Your task to perform on an android device: check data usage Image 0: 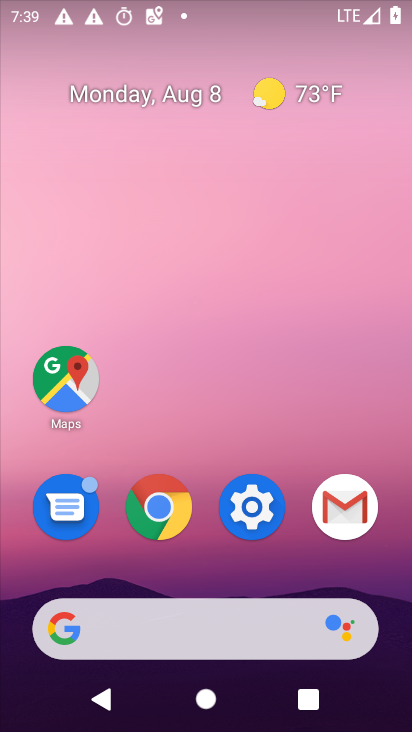
Step 0: drag from (251, 559) to (179, 209)
Your task to perform on an android device: check data usage Image 1: 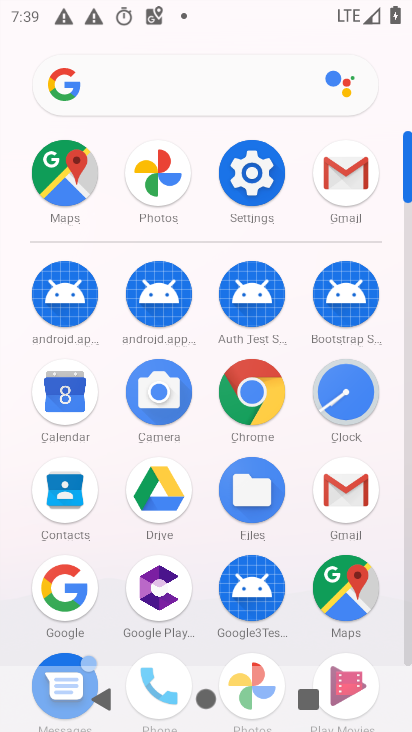
Step 1: click (258, 179)
Your task to perform on an android device: check data usage Image 2: 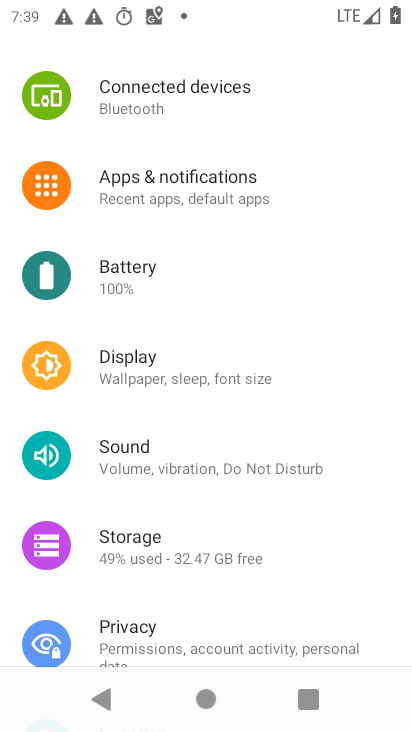
Step 2: drag from (158, 94) to (222, 392)
Your task to perform on an android device: check data usage Image 3: 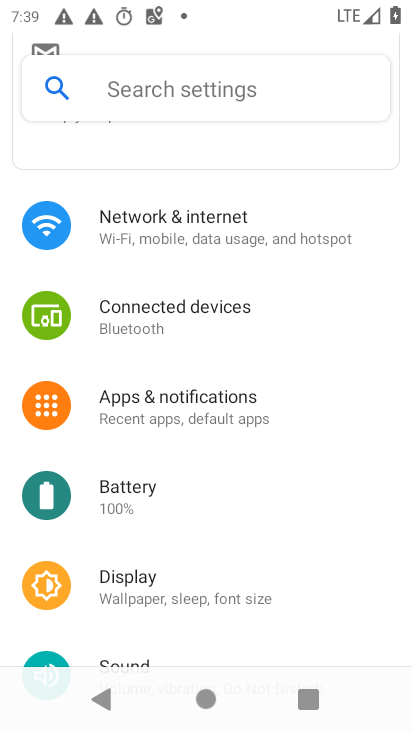
Step 3: click (191, 89)
Your task to perform on an android device: check data usage Image 4: 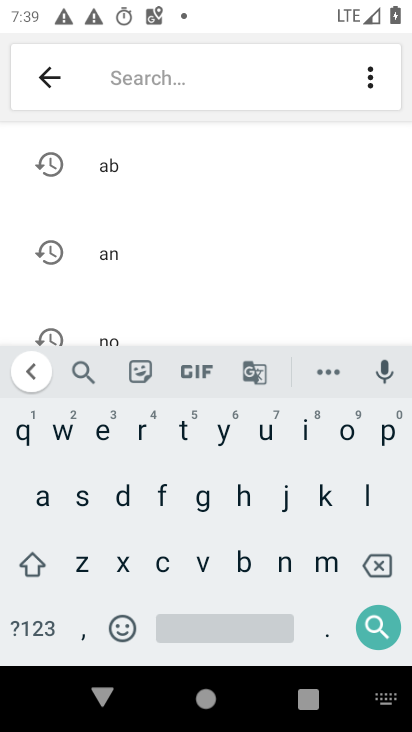
Step 4: click (129, 501)
Your task to perform on an android device: check data usage Image 5: 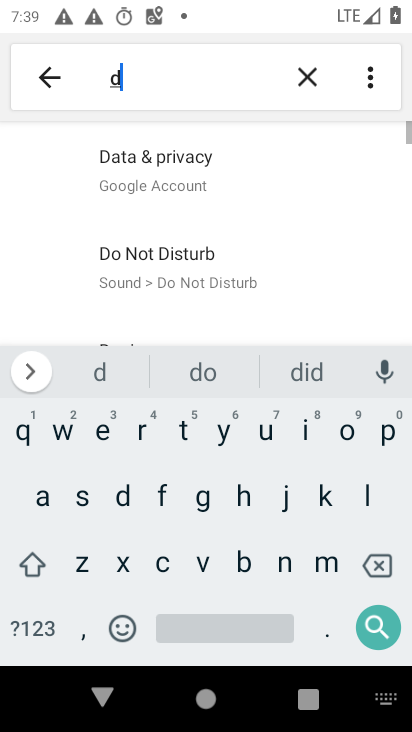
Step 5: click (39, 498)
Your task to perform on an android device: check data usage Image 6: 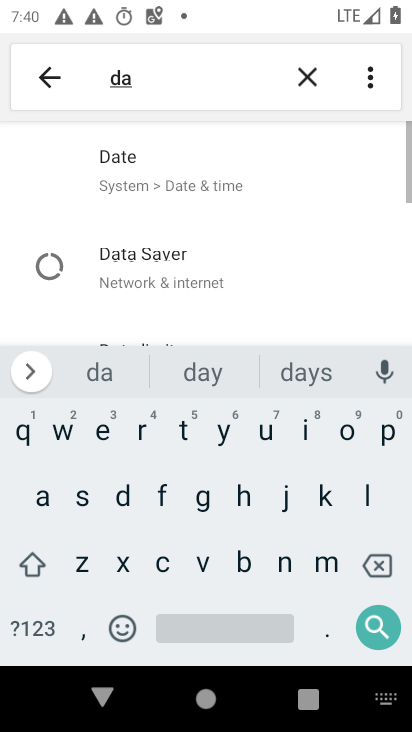
Step 6: click (182, 436)
Your task to perform on an android device: check data usage Image 7: 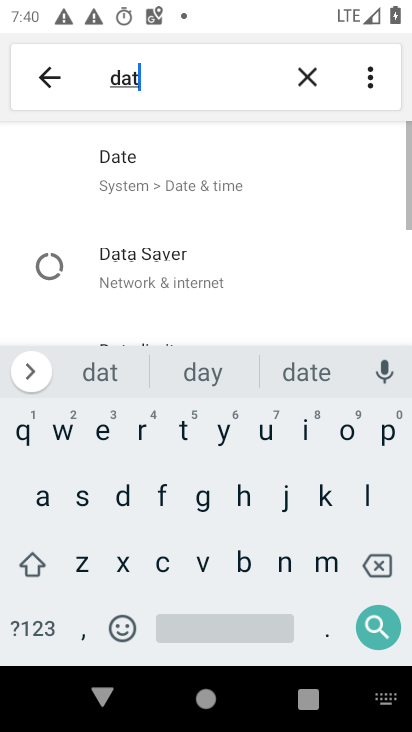
Step 7: click (38, 494)
Your task to perform on an android device: check data usage Image 8: 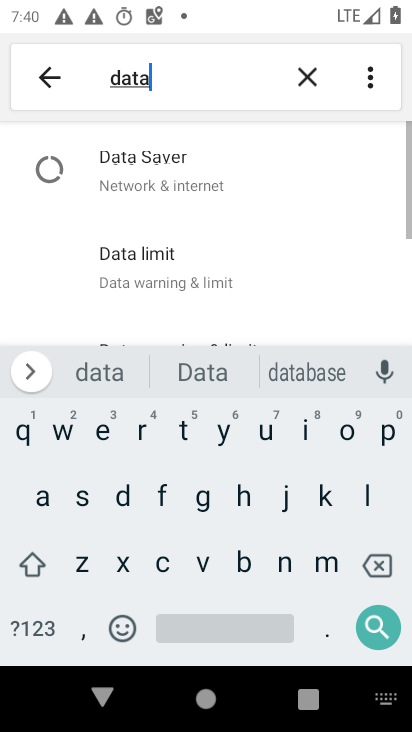
Step 8: click (200, 625)
Your task to perform on an android device: check data usage Image 9: 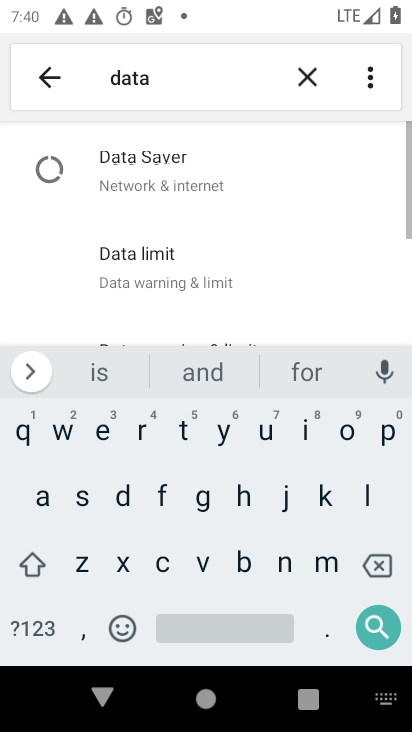
Step 9: click (267, 435)
Your task to perform on an android device: check data usage Image 10: 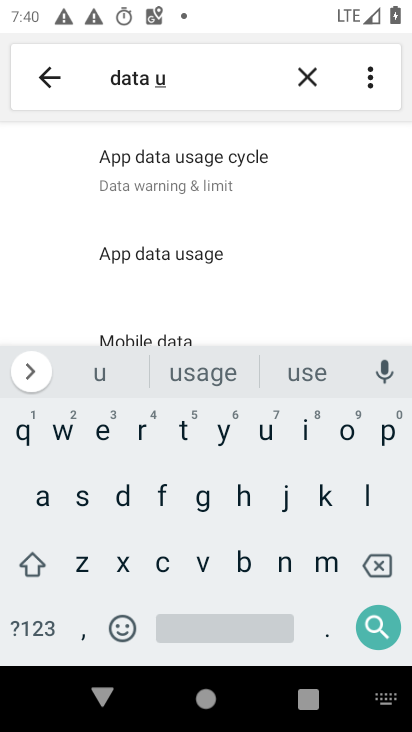
Step 10: click (126, 249)
Your task to perform on an android device: check data usage Image 11: 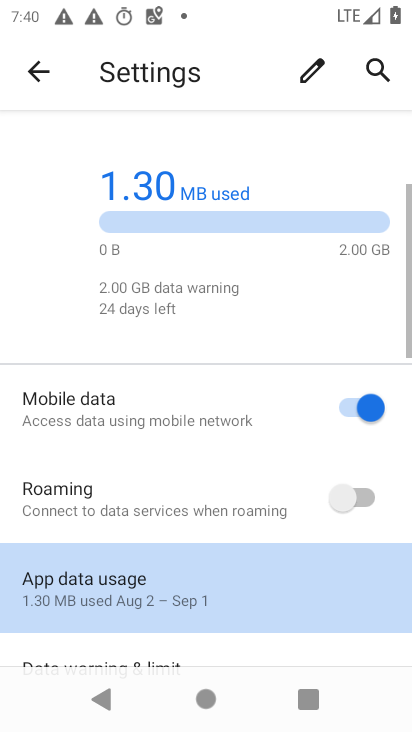
Step 11: click (179, 595)
Your task to perform on an android device: check data usage Image 12: 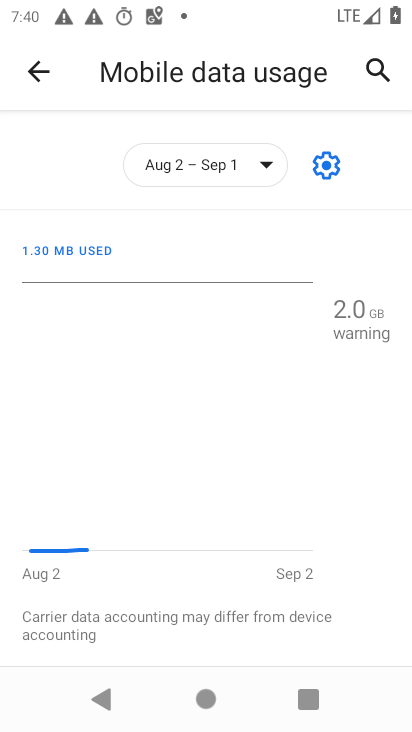
Step 12: task complete